Your task to perform on an android device: open app "Upside-Cash back on gas & food" (install if not already installed) Image 0: 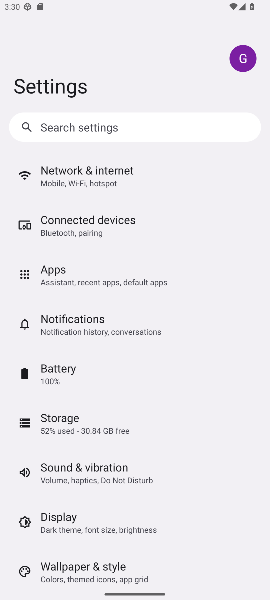
Step 0: press home button
Your task to perform on an android device: open app "Upside-Cash back on gas & food" (install if not already installed) Image 1: 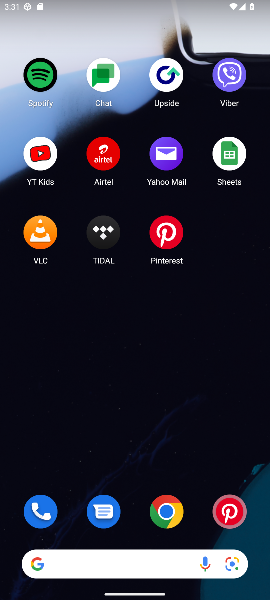
Step 1: drag from (128, 396) to (174, 43)
Your task to perform on an android device: open app "Upside-Cash back on gas & food" (install if not already installed) Image 2: 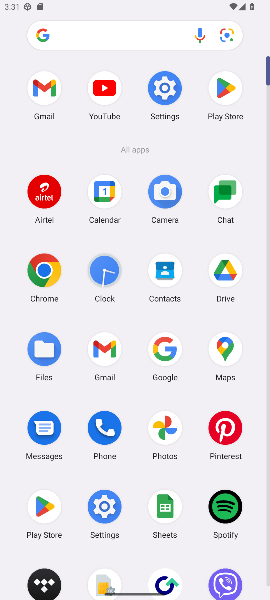
Step 2: click (230, 119)
Your task to perform on an android device: open app "Upside-Cash back on gas & food" (install if not already installed) Image 3: 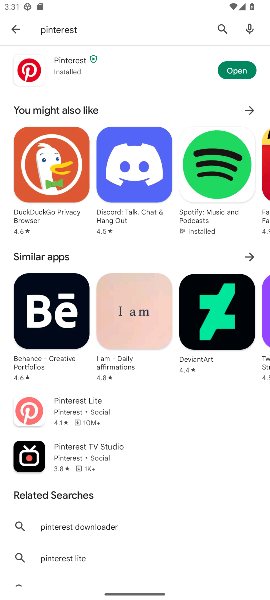
Step 3: click (18, 26)
Your task to perform on an android device: open app "Upside-Cash back on gas & food" (install if not already installed) Image 4: 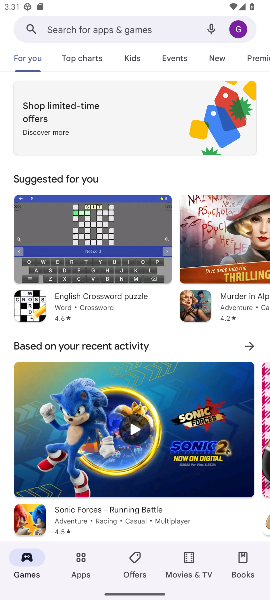
Step 4: click (112, 19)
Your task to perform on an android device: open app "Upside-Cash back on gas & food" (install if not already installed) Image 5: 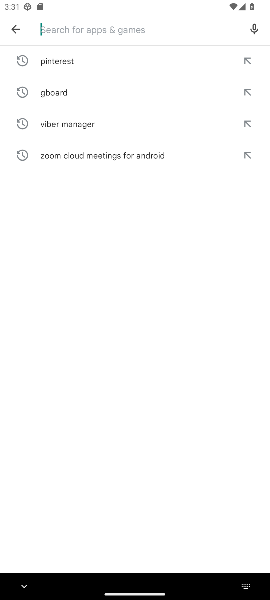
Step 5: type "Upside-Cash back on gas & food"
Your task to perform on an android device: open app "Upside-Cash back on gas & food" (install if not already installed) Image 6: 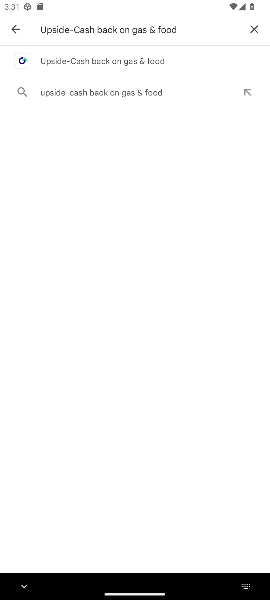
Step 6: click (109, 59)
Your task to perform on an android device: open app "Upside-Cash back on gas & food" (install if not already installed) Image 7: 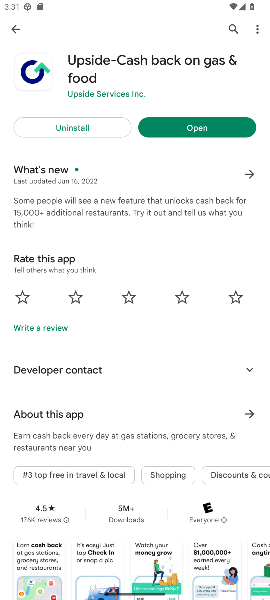
Step 7: click (196, 122)
Your task to perform on an android device: open app "Upside-Cash back on gas & food" (install if not already installed) Image 8: 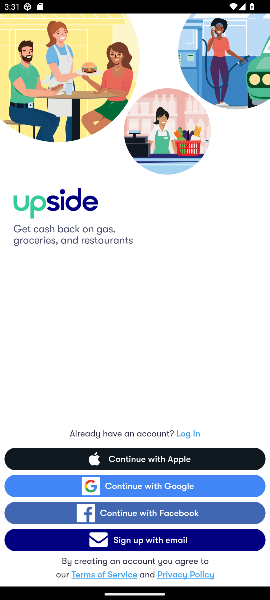
Step 8: task complete